Your task to perform on an android device: Open calendar and show me the first week of next month Image 0: 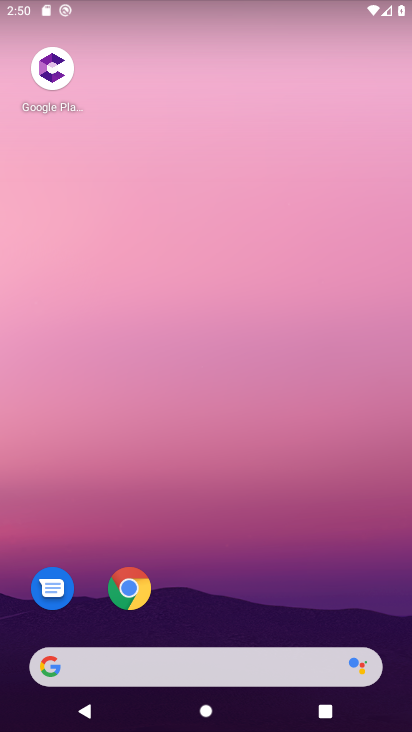
Step 0: drag from (212, 629) to (223, 724)
Your task to perform on an android device: Open calendar and show me the first week of next month Image 1: 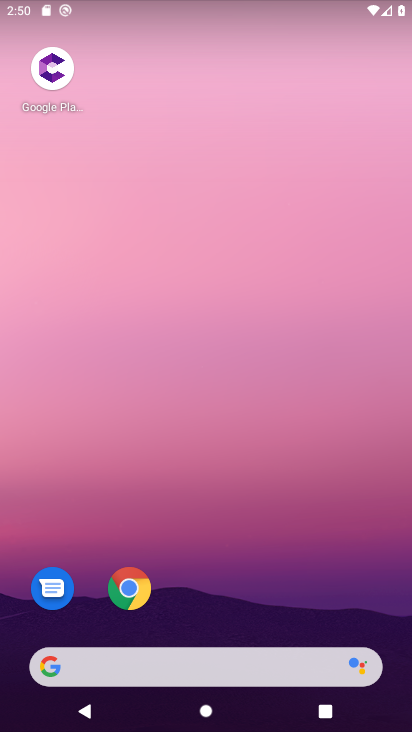
Step 1: drag from (290, 625) to (235, 75)
Your task to perform on an android device: Open calendar and show me the first week of next month Image 2: 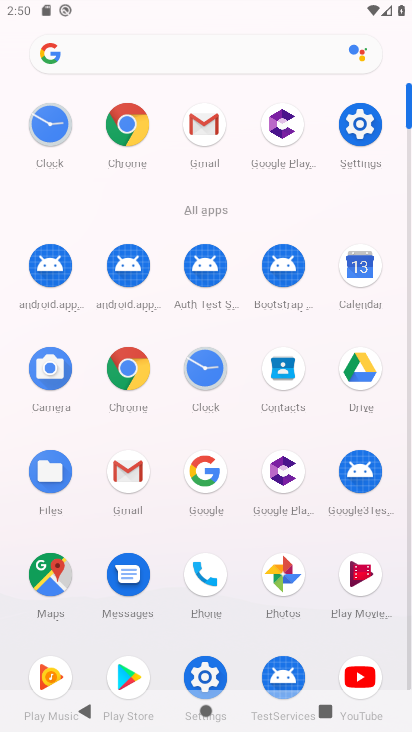
Step 2: click (351, 273)
Your task to perform on an android device: Open calendar and show me the first week of next month Image 3: 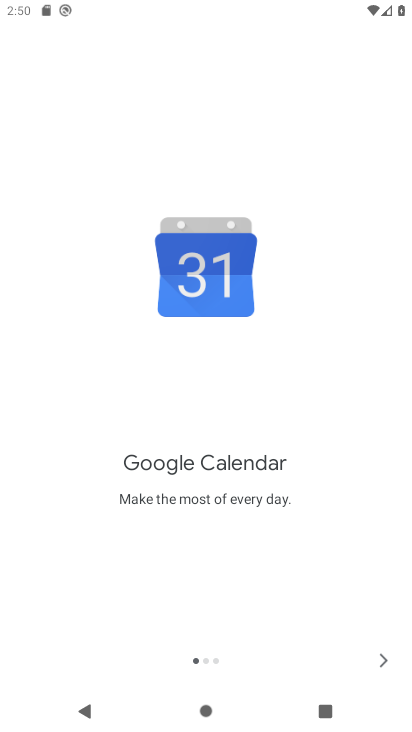
Step 3: click (383, 657)
Your task to perform on an android device: Open calendar and show me the first week of next month Image 4: 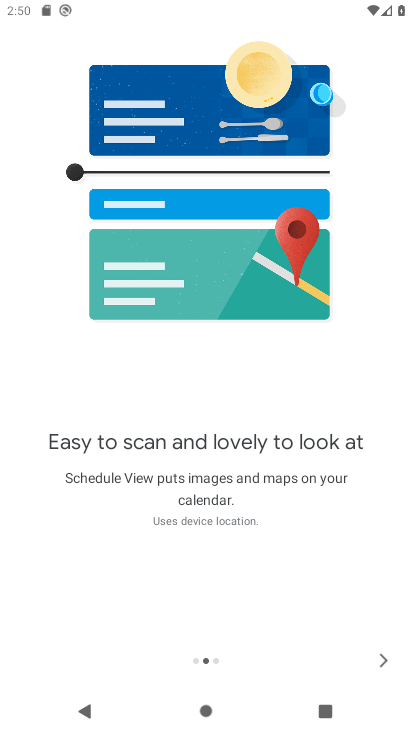
Step 4: click (378, 653)
Your task to perform on an android device: Open calendar and show me the first week of next month Image 5: 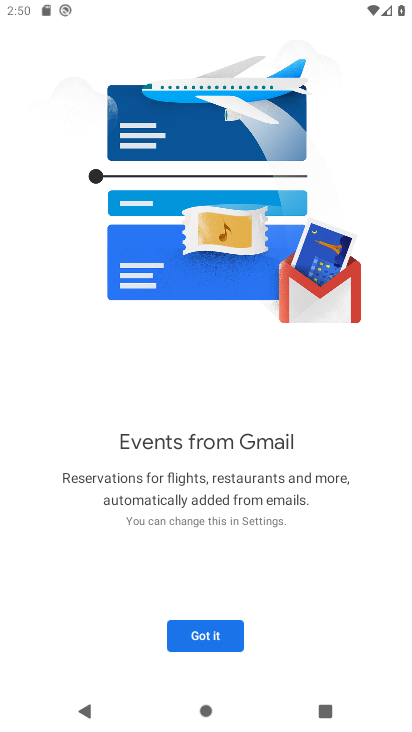
Step 5: click (232, 643)
Your task to perform on an android device: Open calendar and show me the first week of next month Image 6: 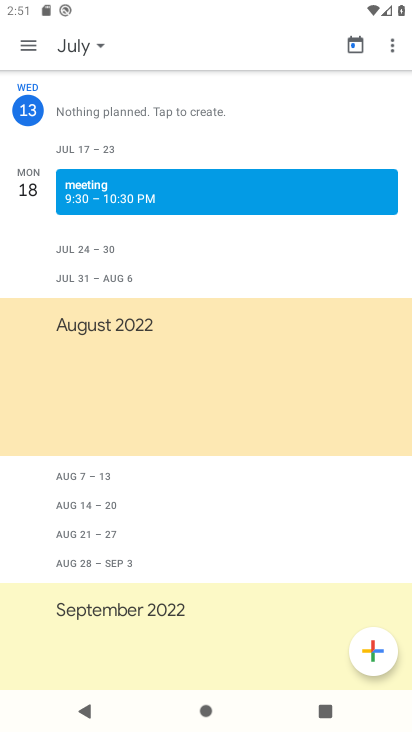
Step 6: click (21, 46)
Your task to perform on an android device: Open calendar and show me the first week of next month Image 7: 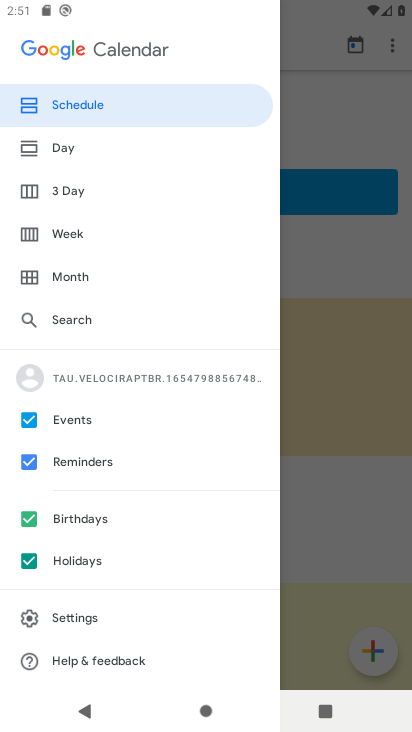
Step 7: click (75, 241)
Your task to perform on an android device: Open calendar and show me the first week of next month Image 8: 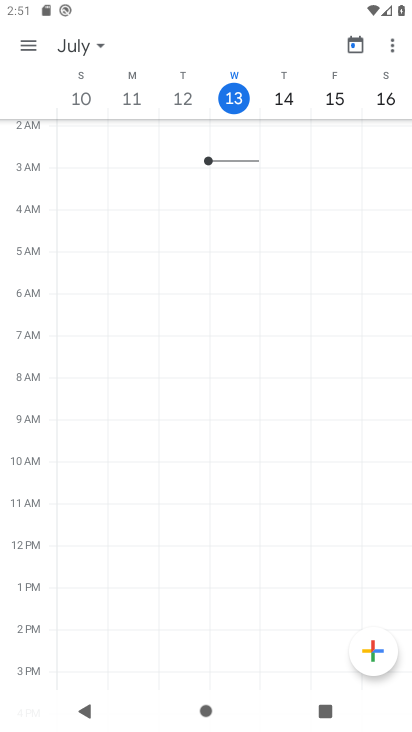
Step 8: task complete